Your task to perform on an android device: Go to ESPN.com Image 0: 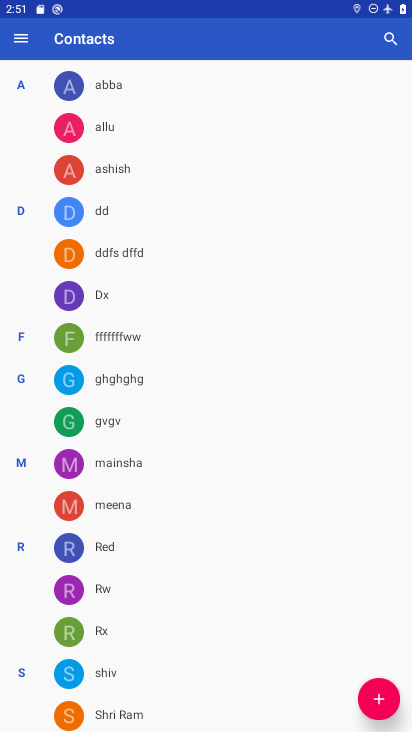
Step 0: press home button
Your task to perform on an android device: Go to ESPN.com Image 1: 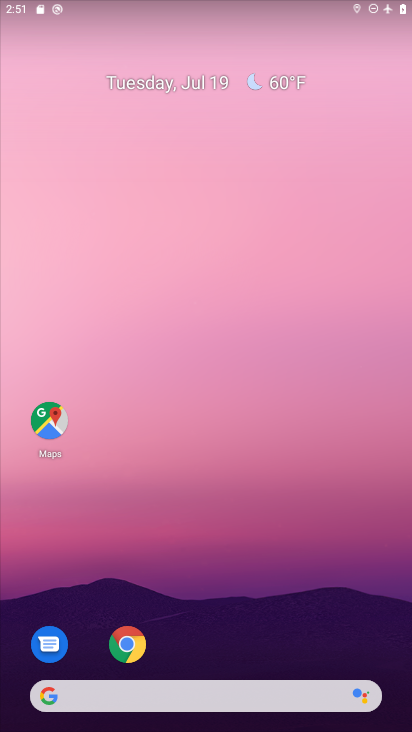
Step 1: drag from (213, 665) to (183, 110)
Your task to perform on an android device: Go to ESPN.com Image 2: 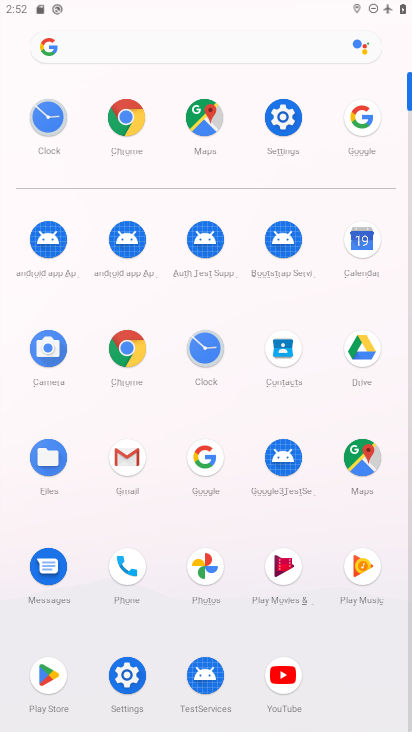
Step 2: click (124, 352)
Your task to perform on an android device: Go to ESPN.com Image 3: 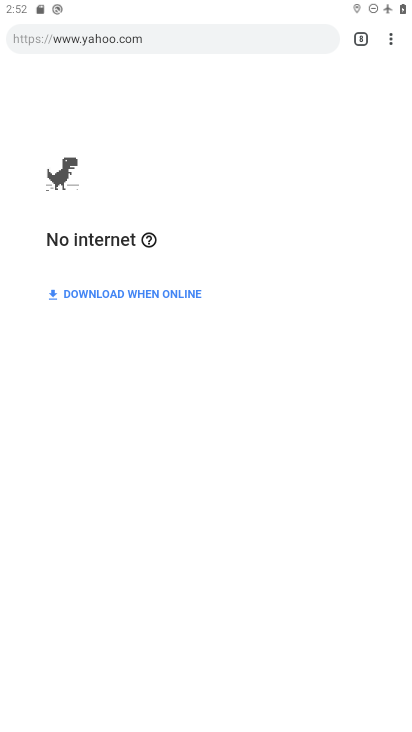
Step 3: click (359, 36)
Your task to perform on an android device: Go to ESPN.com Image 4: 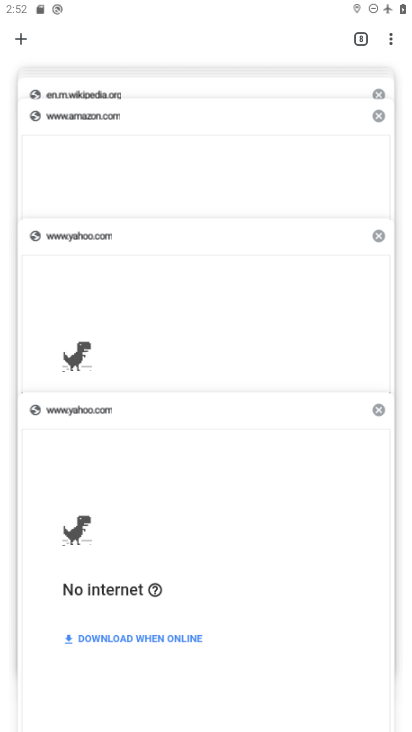
Step 4: drag from (88, 101) to (87, 536)
Your task to perform on an android device: Go to ESPN.com Image 5: 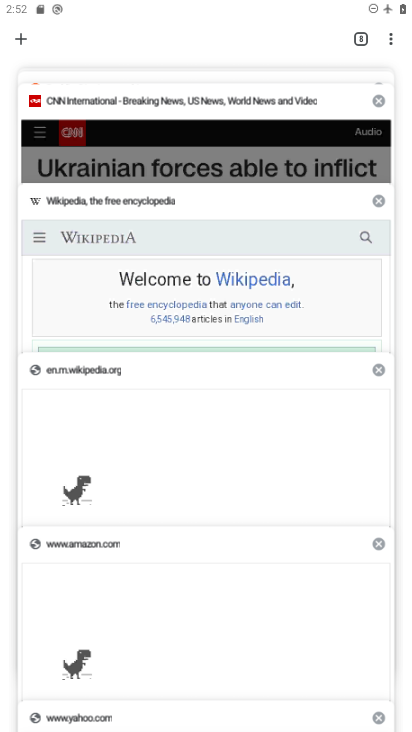
Step 5: drag from (53, 105) to (54, 467)
Your task to perform on an android device: Go to ESPN.com Image 6: 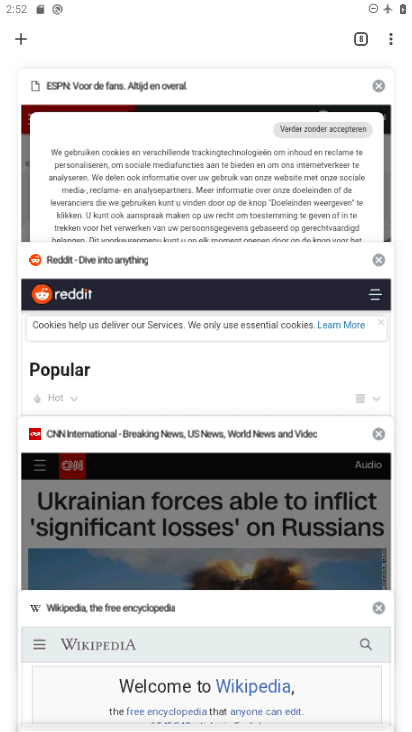
Step 6: drag from (68, 123) to (58, 512)
Your task to perform on an android device: Go to ESPN.com Image 7: 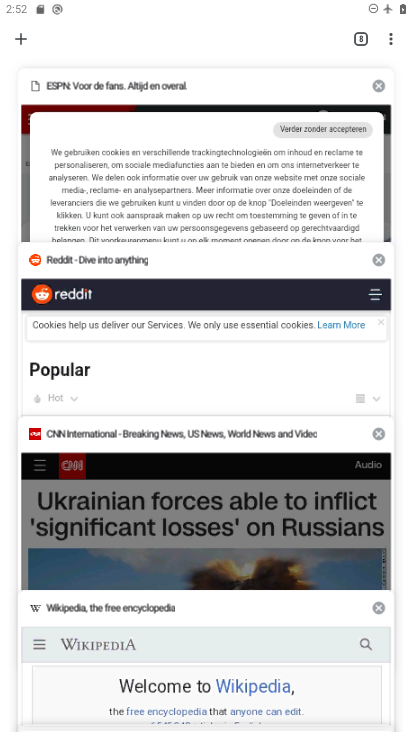
Step 7: click (45, 96)
Your task to perform on an android device: Go to ESPN.com Image 8: 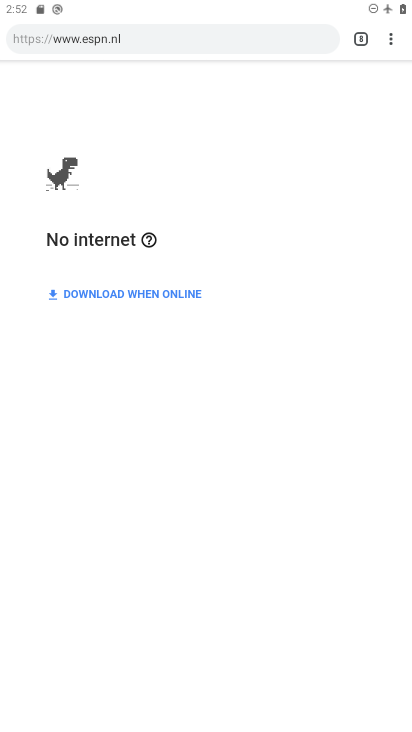
Step 8: task complete